Your task to perform on an android device: Search for vegetarian restaurants on Maps Image 0: 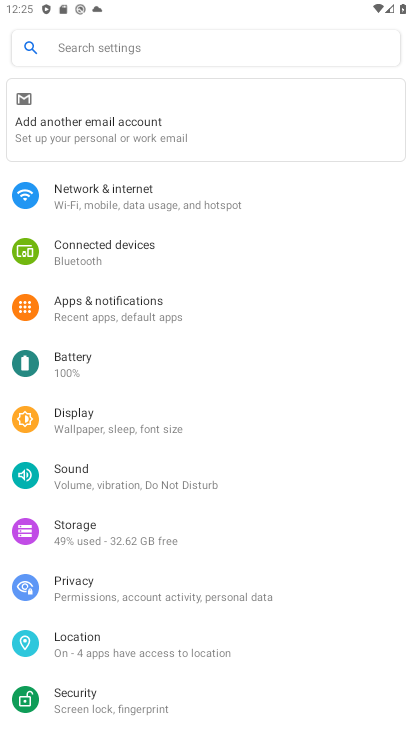
Step 0: press home button
Your task to perform on an android device: Search for vegetarian restaurants on Maps Image 1: 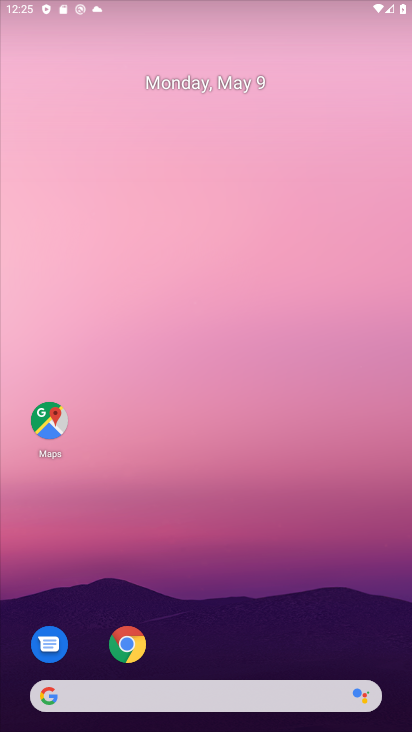
Step 1: drag from (245, 561) to (107, 0)
Your task to perform on an android device: Search for vegetarian restaurants on Maps Image 2: 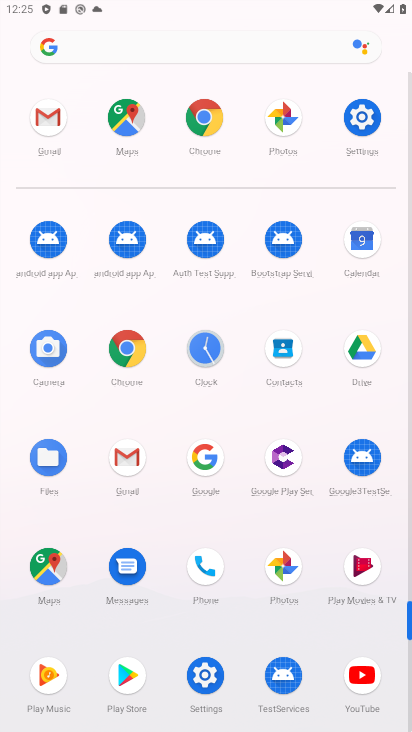
Step 2: click (122, 98)
Your task to perform on an android device: Search for vegetarian restaurants on Maps Image 3: 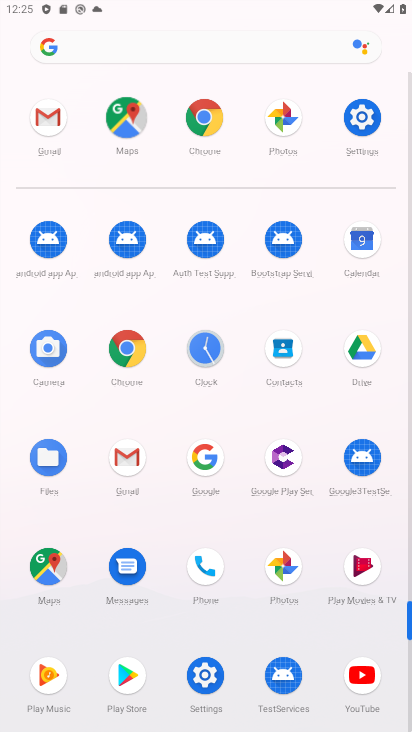
Step 3: click (123, 104)
Your task to perform on an android device: Search for vegetarian restaurants on Maps Image 4: 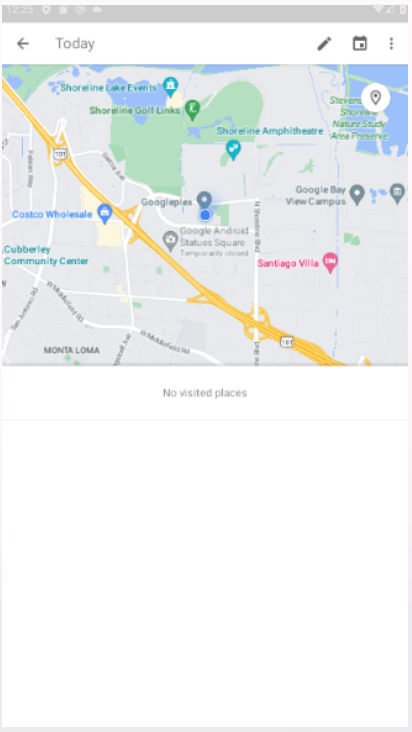
Step 4: click (125, 112)
Your task to perform on an android device: Search for vegetarian restaurants on Maps Image 5: 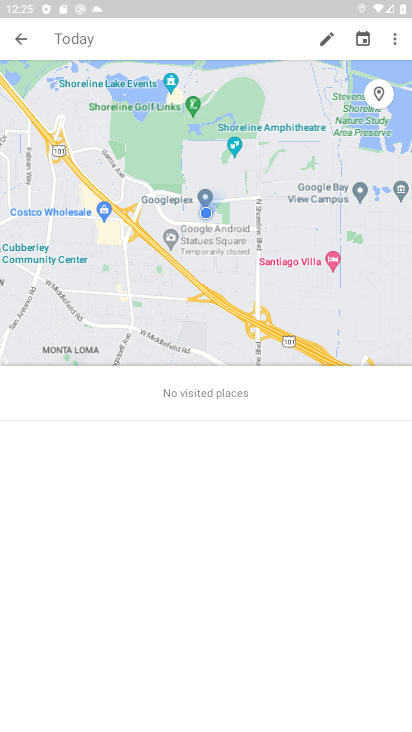
Step 5: click (62, 32)
Your task to perform on an android device: Search for vegetarian restaurants on Maps Image 6: 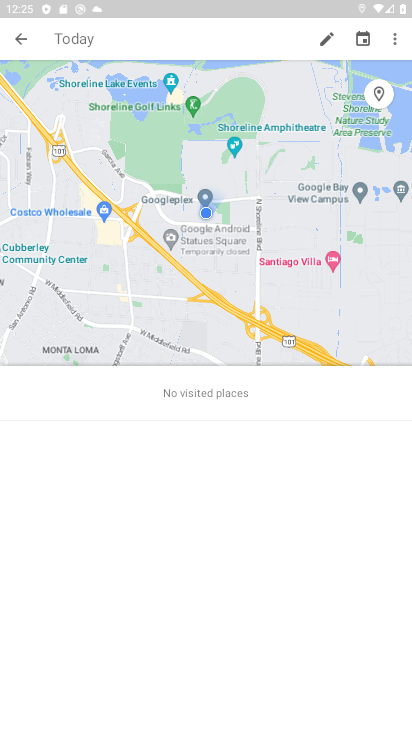
Step 6: click (61, 37)
Your task to perform on an android device: Search for vegetarian restaurants on Maps Image 7: 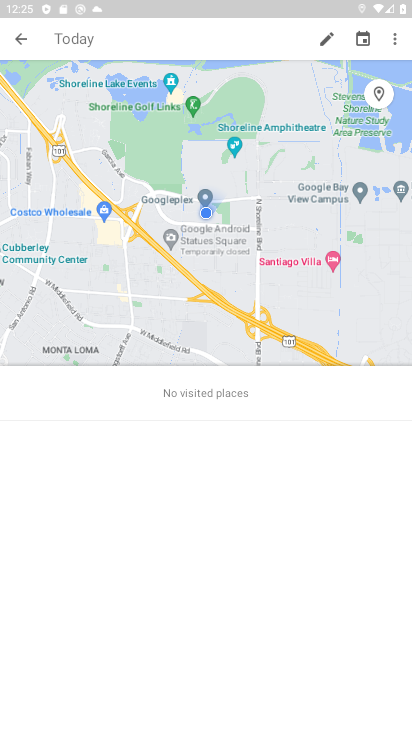
Step 7: click (61, 37)
Your task to perform on an android device: Search for vegetarian restaurants on Maps Image 8: 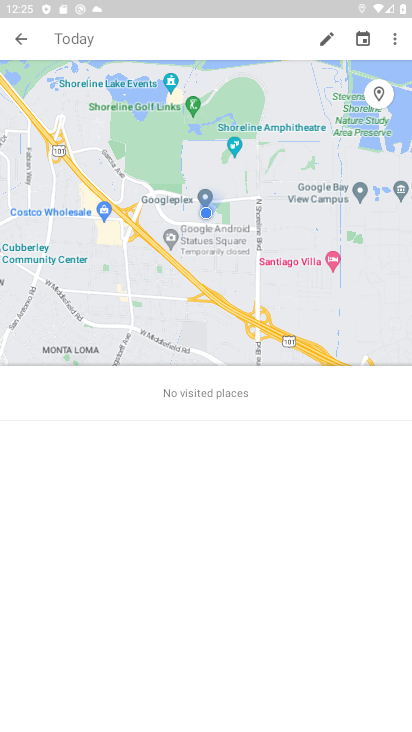
Step 8: click (61, 37)
Your task to perform on an android device: Search for vegetarian restaurants on Maps Image 9: 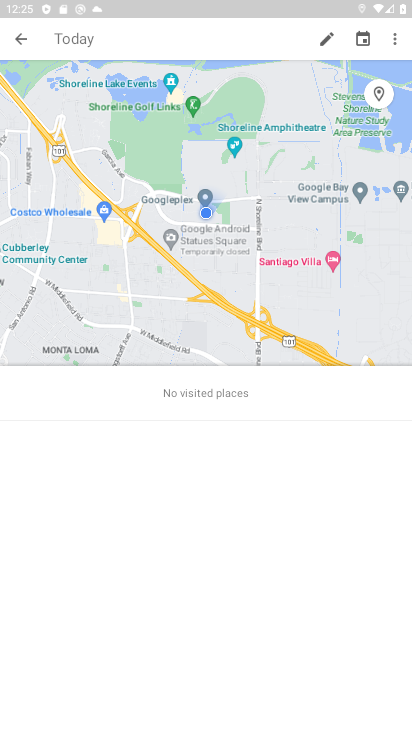
Step 9: click (55, 34)
Your task to perform on an android device: Search for vegetarian restaurants on Maps Image 10: 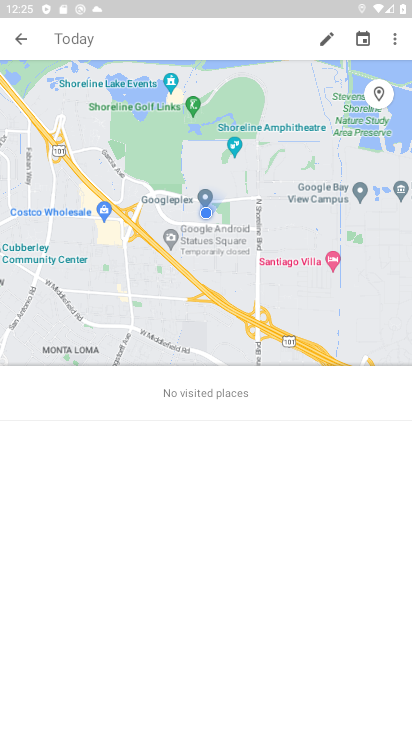
Step 10: click (66, 35)
Your task to perform on an android device: Search for vegetarian restaurants on Maps Image 11: 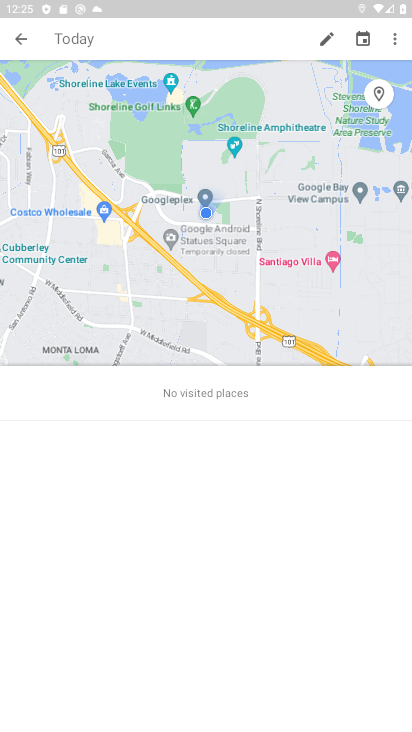
Step 11: click (22, 37)
Your task to perform on an android device: Search for vegetarian restaurants on Maps Image 12: 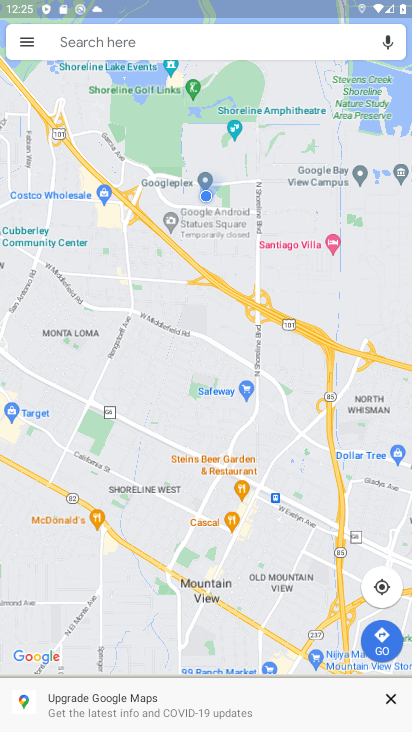
Step 12: click (58, 33)
Your task to perform on an android device: Search for vegetarian restaurants on Maps Image 13: 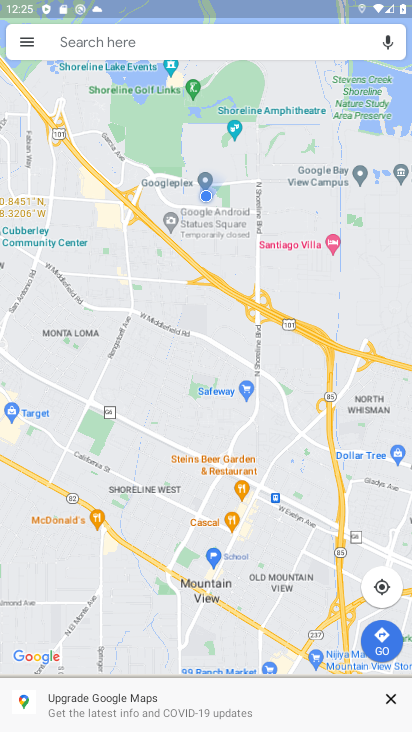
Step 13: click (71, 34)
Your task to perform on an android device: Search for vegetarian restaurants on Maps Image 14: 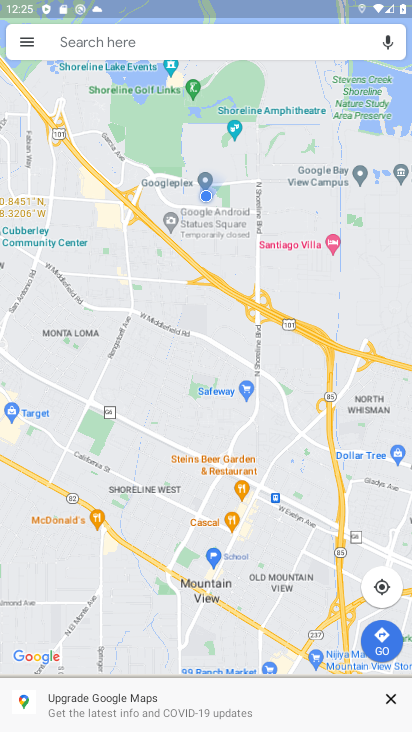
Step 14: click (160, 41)
Your task to perform on an android device: Search for vegetarian restaurants on Maps Image 15: 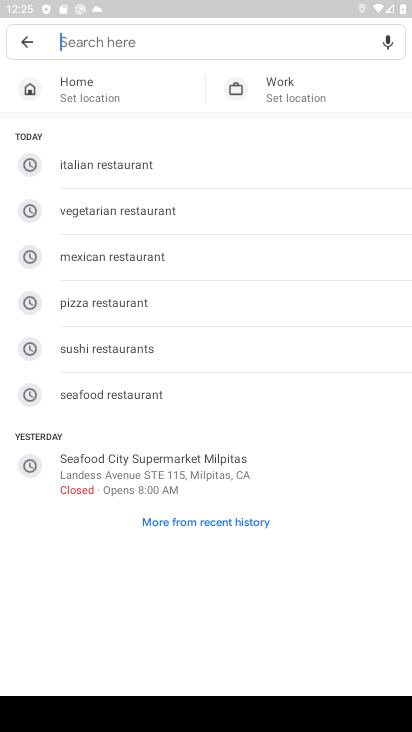
Step 15: click (119, 206)
Your task to perform on an android device: Search for vegetarian restaurants on Maps Image 16: 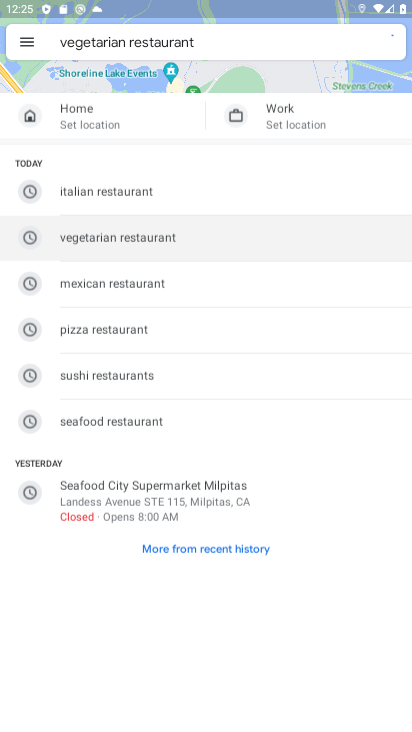
Step 16: click (119, 206)
Your task to perform on an android device: Search for vegetarian restaurants on Maps Image 17: 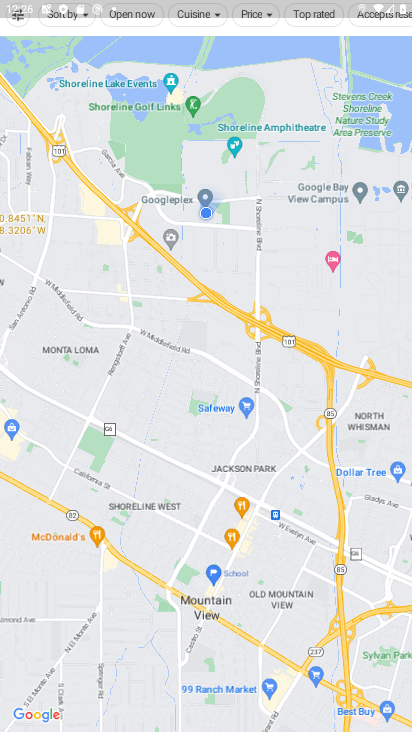
Step 17: task complete